Your task to perform on an android device: Open the web browser Image 0: 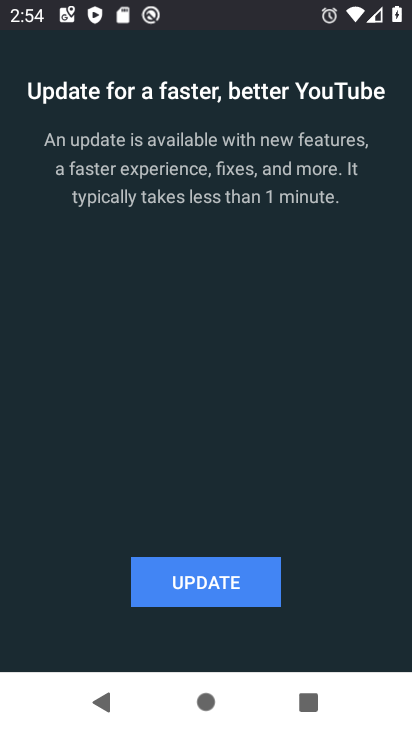
Step 0: press back button
Your task to perform on an android device: Open the web browser Image 1: 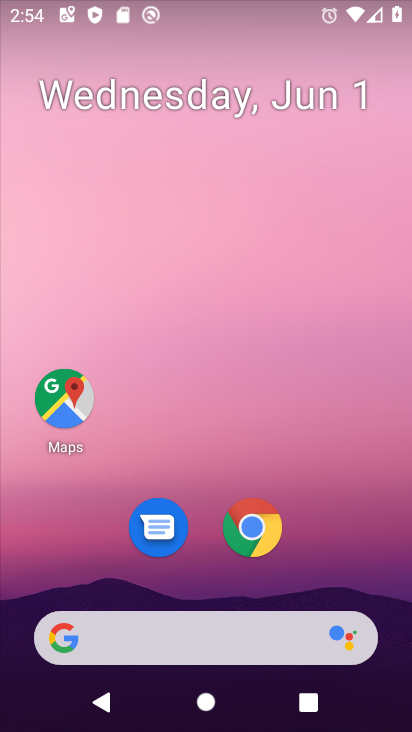
Step 1: click (252, 527)
Your task to perform on an android device: Open the web browser Image 2: 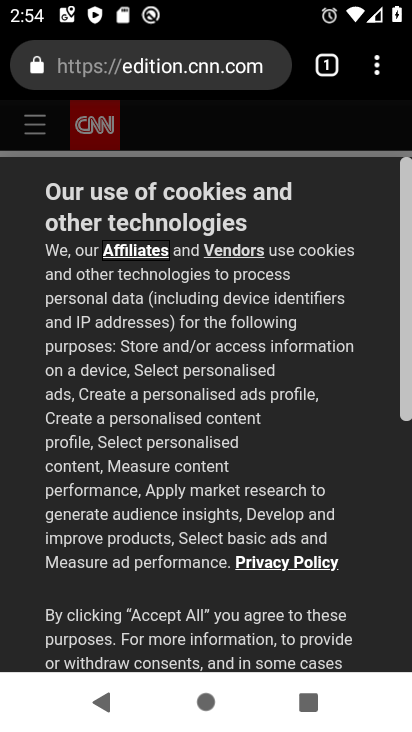
Step 2: task complete